Your task to perform on an android device: Open Google Image 0: 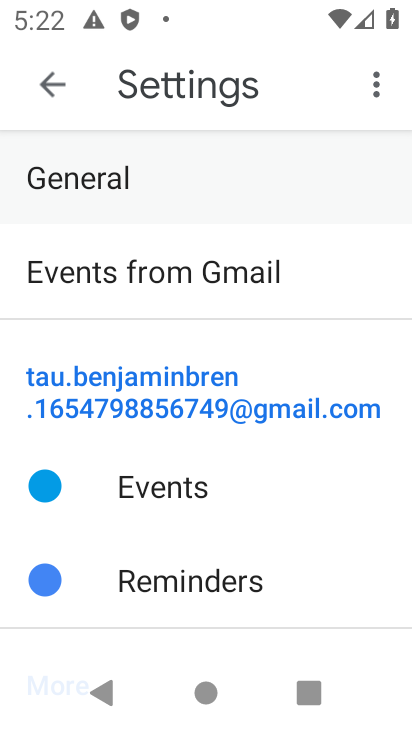
Step 0: press home button
Your task to perform on an android device: Open Google Image 1: 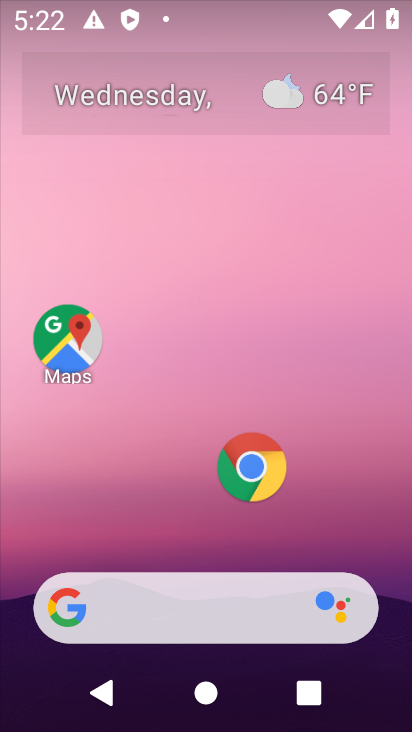
Step 1: drag from (166, 487) to (174, 164)
Your task to perform on an android device: Open Google Image 2: 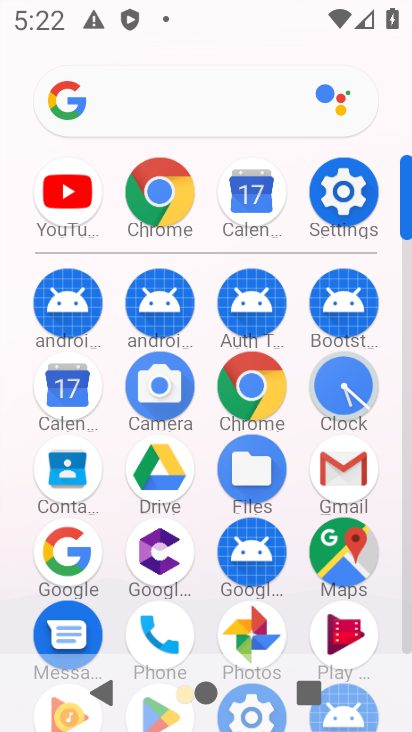
Step 2: click (185, 194)
Your task to perform on an android device: Open Google Image 3: 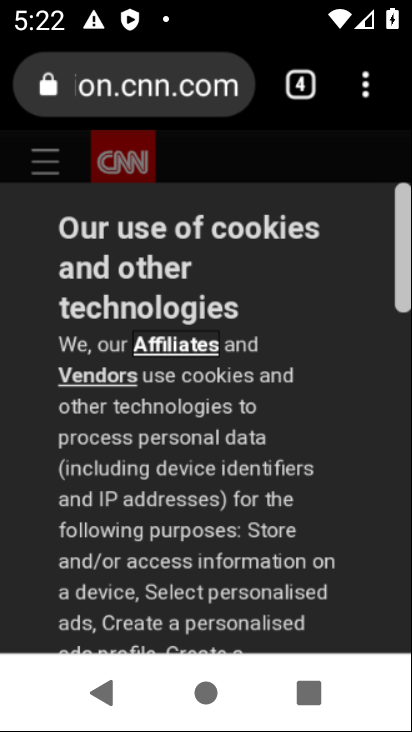
Step 3: task complete